Your task to perform on an android device: turn on data saver in the chrome app Image 0: 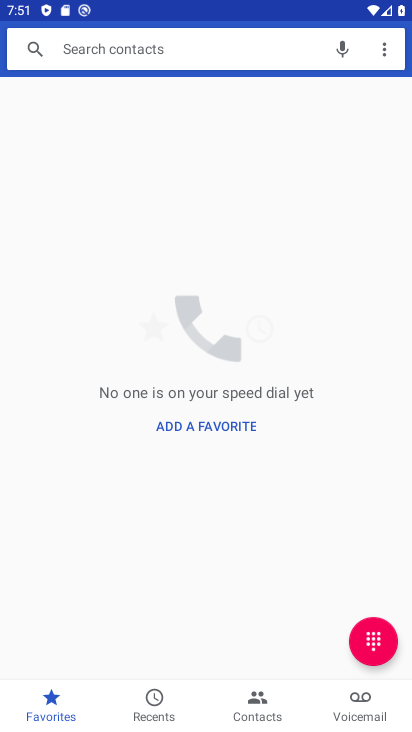
Step 0: press home button
Your task to perform on an android device: turn on data saver in the chrome app Image 1: 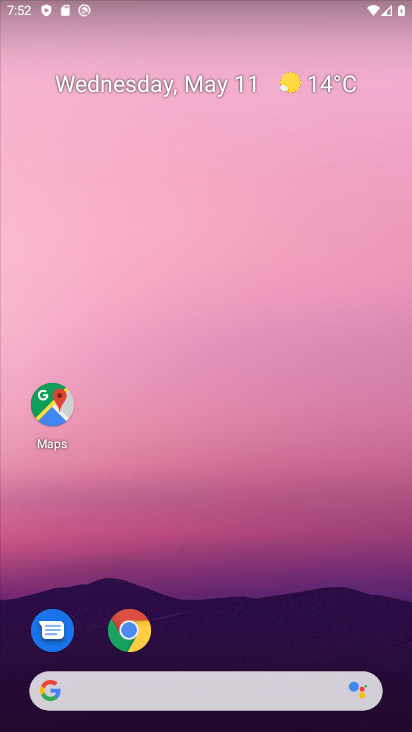
Step 1: click (127, 629)
Your task to perform on an android device: turn on data saver in the chrome app Image 2: 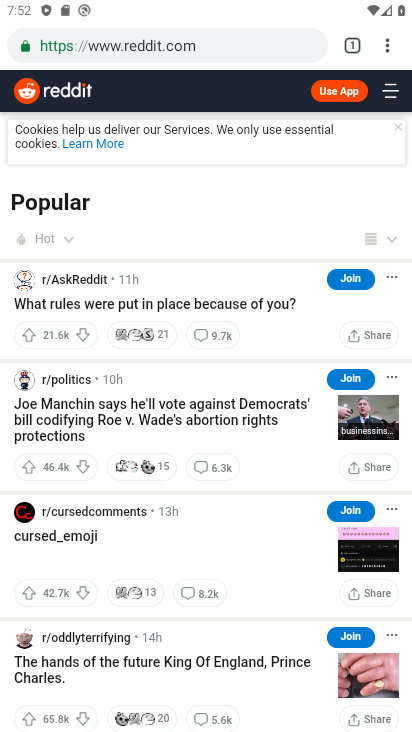
Step 2: click (386, 43)
Your task to perform on an android device: turn on data saver in the chrome app Image 3: 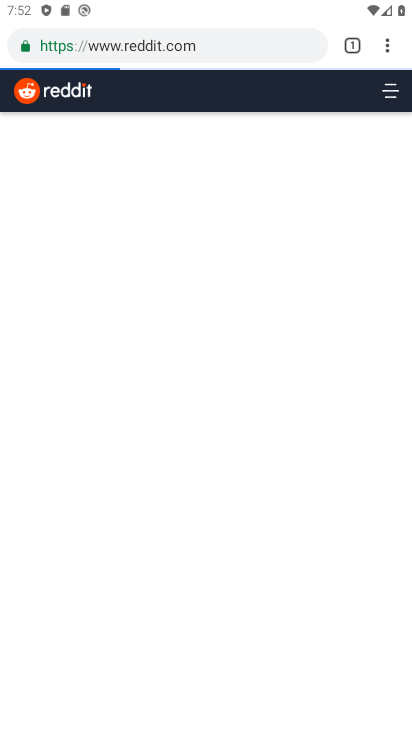
Step 3: click (386, 43)
Your task to perform on an android device: turn on data saver in the chrome app Image 4: 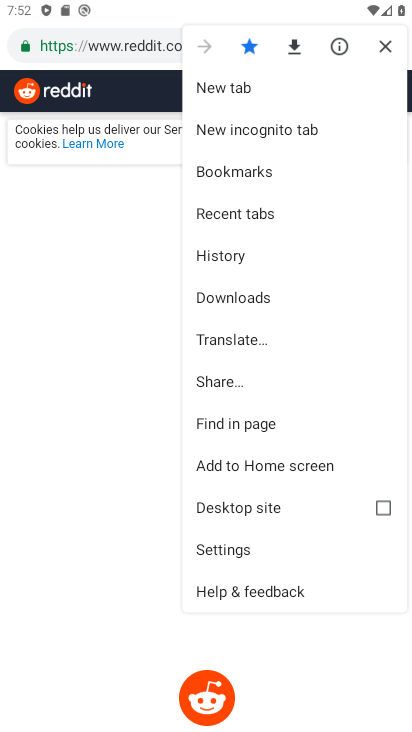
Step 4: click (209, 538)
Your task to perform on an android device: turn on data saver in the chrome app Image 5: 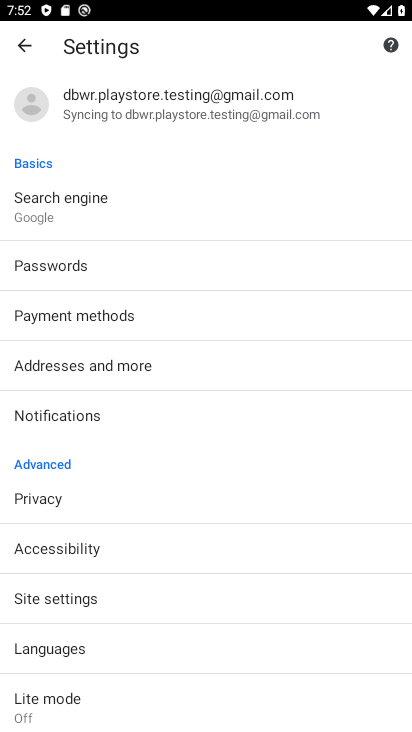
Step 5: click (10, 692)
Your task to perform on an android device: turn on data saver in the chrome app Image 6: 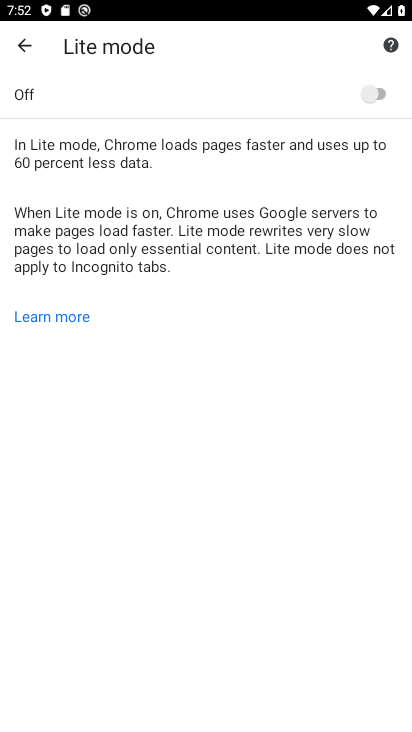
Step 6: click (378, 101)
Your task to perform on an android device: turn on data saver in the chrome app Image 7: 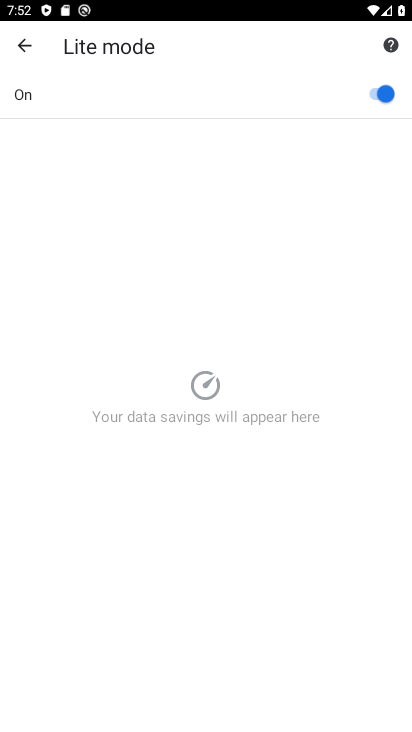
Step 7: task complete